Your task to perform on an android device: toggle airplane mode Image 0: 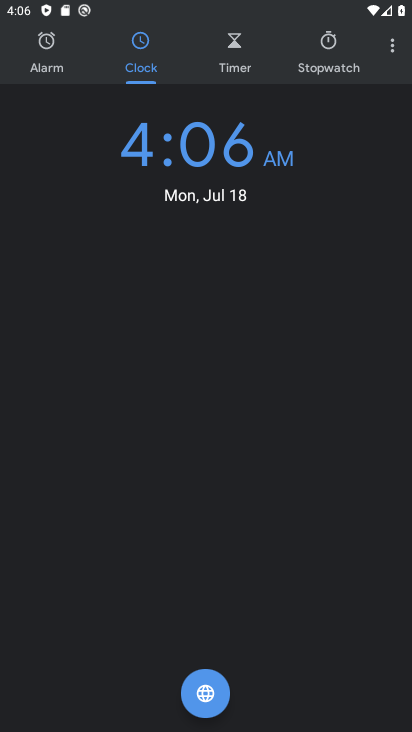
Step 0: press back button
Your task to perform on an android device: toggle airplane mode Image 1: 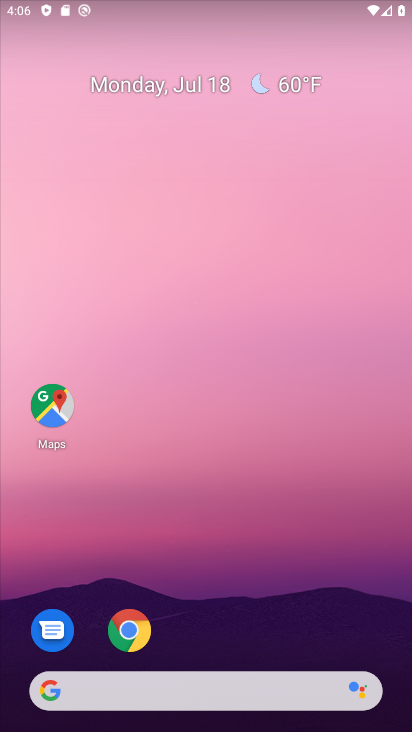
Step 1: drag from (201, 604) to (163, 280)
Your task to perform on an android device: toggle airplane mode Image 2: 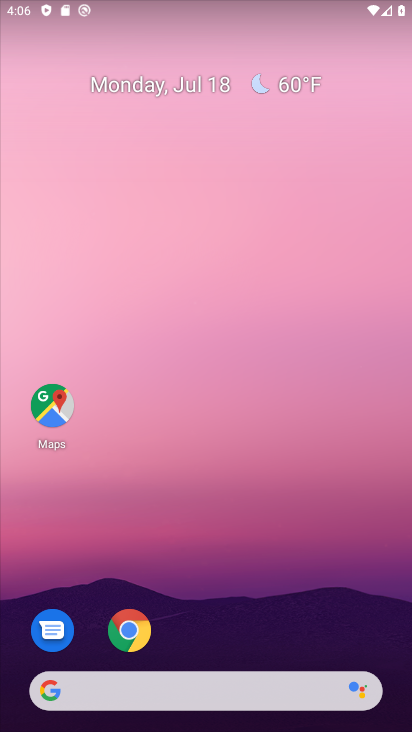
Step 2: drag from (207, 610) to (212, 145)
Your task to perform on an android device: toggle airplane mode Image 3: 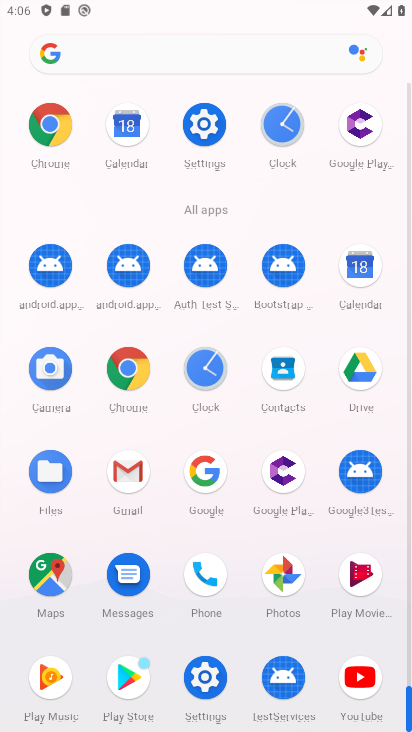
Step 3: click (198, 115)
Your task to perform on an android device: toggle airplane mode Image 4: 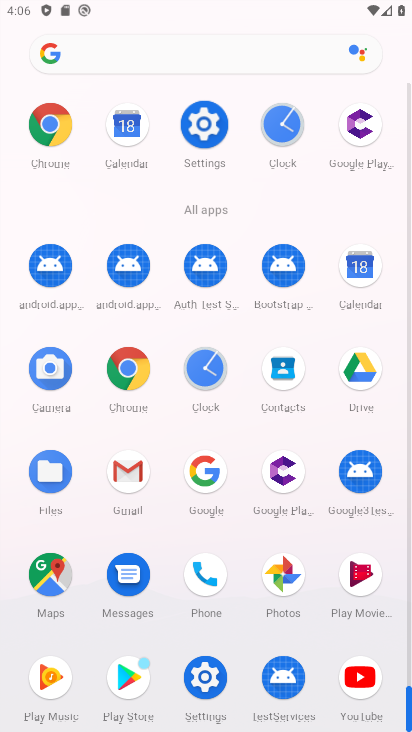
Step 4: click (199, 115)
Your task to perform on an android device: toggle airplane mode Image 5: 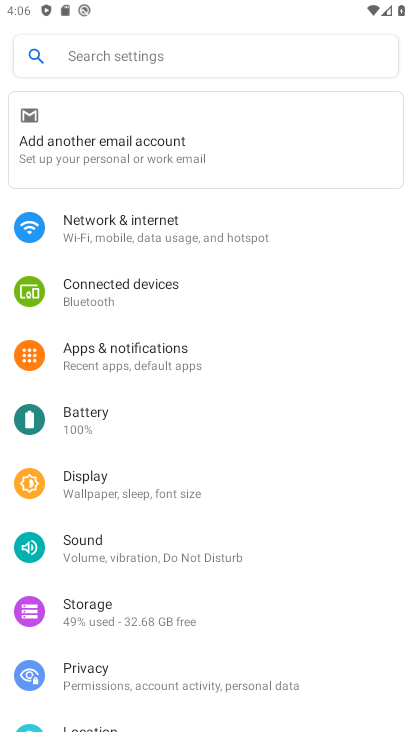
Step 5: click (113, 226)
Your task to perform on an android device: toggle airplane mode Image 6: 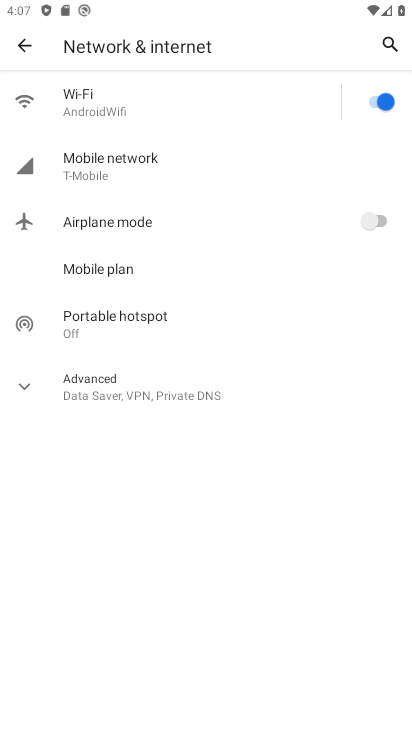
Step 6: click (372, 218)
Your task to perform on an android device: toggle airplane mode Image 7: 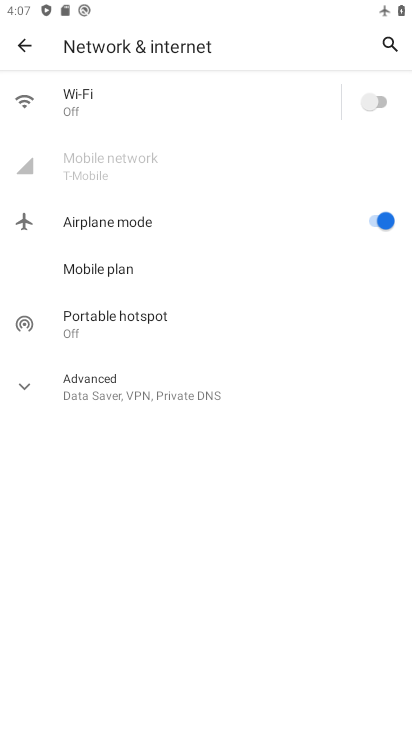
Step 7: task complete